Your task to perform on an android device: Open calendar and show me the third week of next month Image 0: 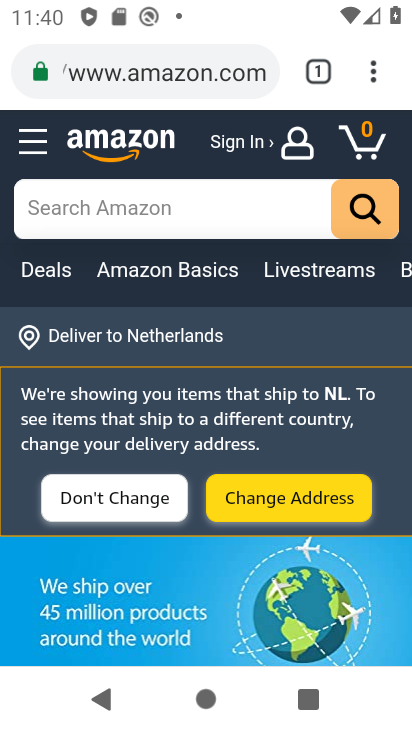
Step 0: press home button
Your task to perform on an android device: Open calendar and show me the third week of next month Image 1: 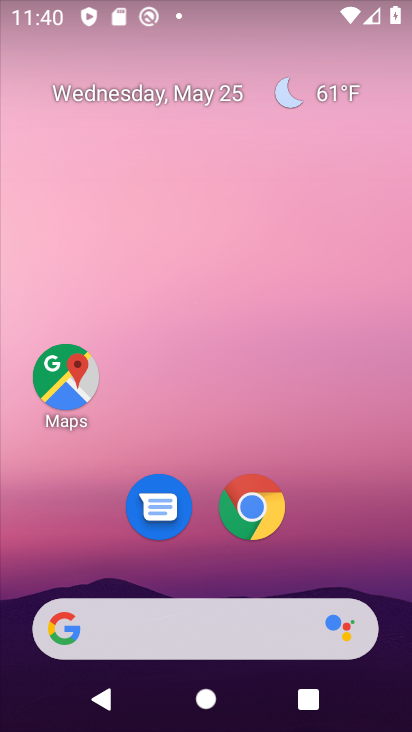
Step 1: drag from (342, 532) to (296, 3)
Your task to perform on an android device: Open calendar and show me the third week of next month Image 2: 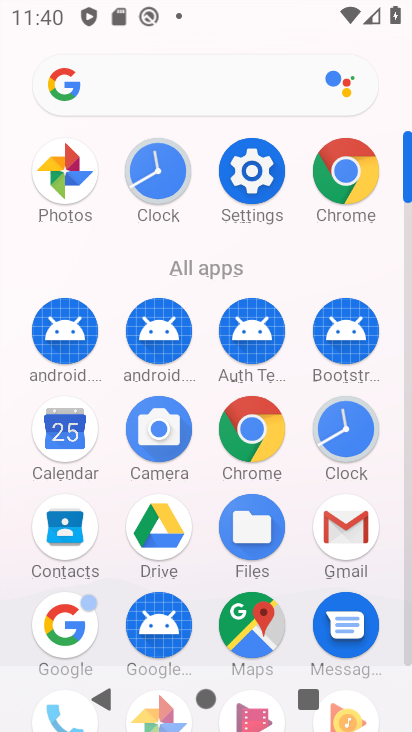
Step 2: click (47, 434)
Your task to perform on an android device: Open calendar and show me the third week of next month Image 3: 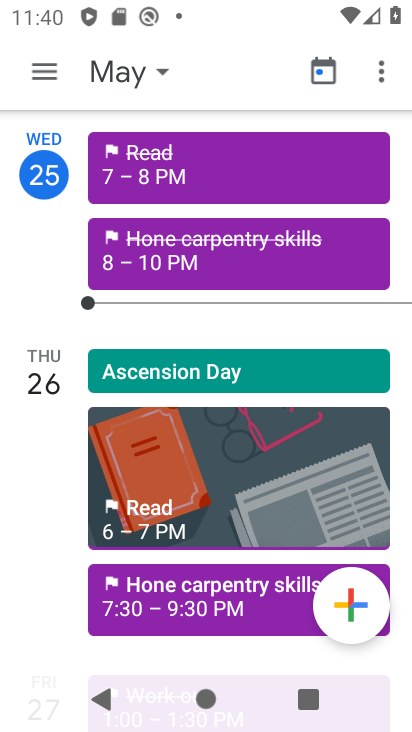
Step 3: click (164, 92)
Your task to perform on an android device: Open calendar and show me the third week of next month Image 4: 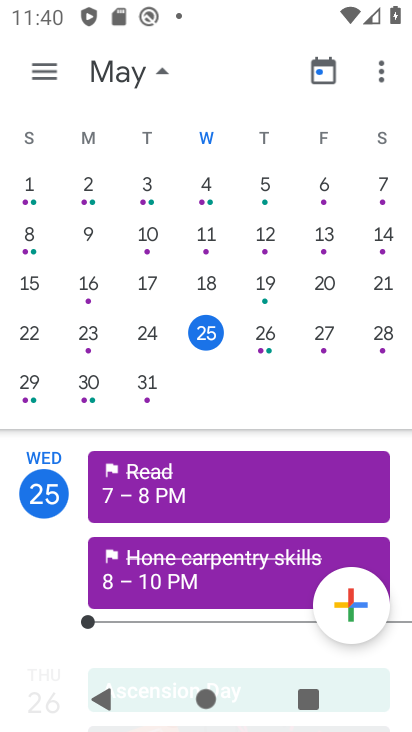
Step 4: drag from (384, 334) to (8, 337)
Your task to perform on an android device: Open calendar and show me the third week of next month Image 5: 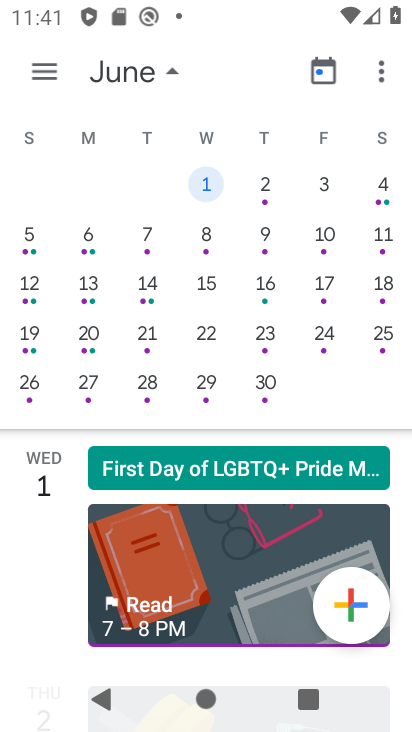
Step 5: click (158, 340)
Your task to perform on an android device: Open calendar and show me the third week of next month Image 6: 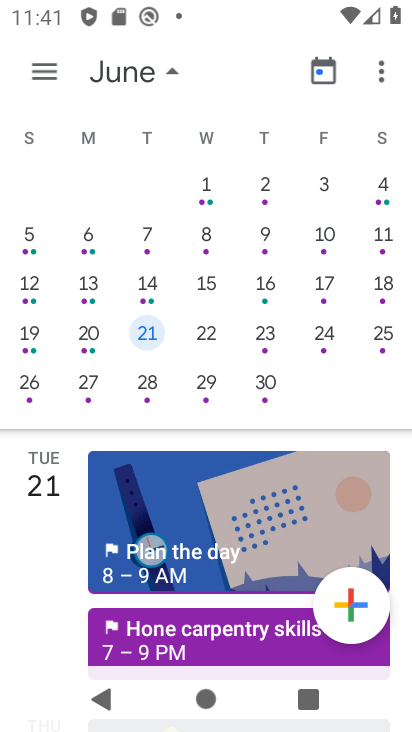
Step 6: task complete